Your task to perform on an android device: Search for Italian restaurants on Maps Image 0: 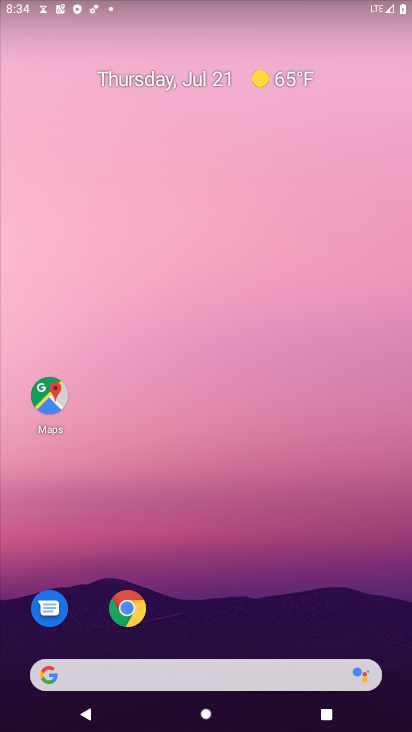
Step 0: click (50, 399)
Your task to perform on an android device: Search for Italian restaurants on Maps Image 1: 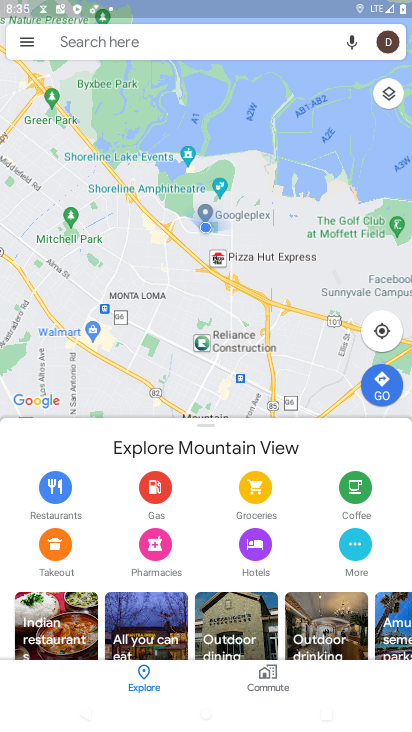
Step 1: click (179, 43)
Your task to perform on an android device: Search for Italian restaurants on Maps Image 2: 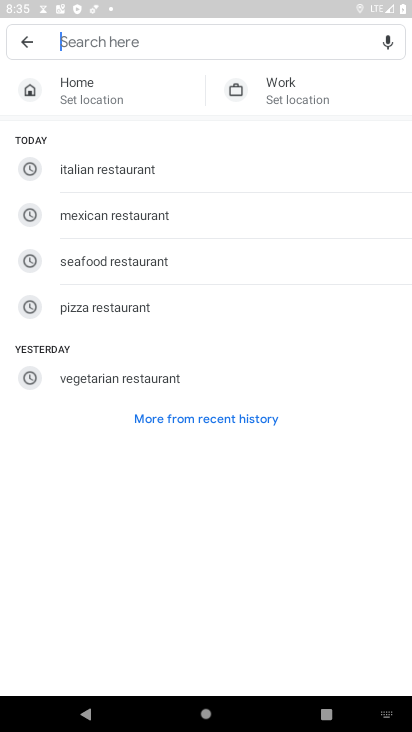
Step 2: type "Italian restaurants"
Your task to perform on an android device: Search for Italian restaurants on Maps Image 3: 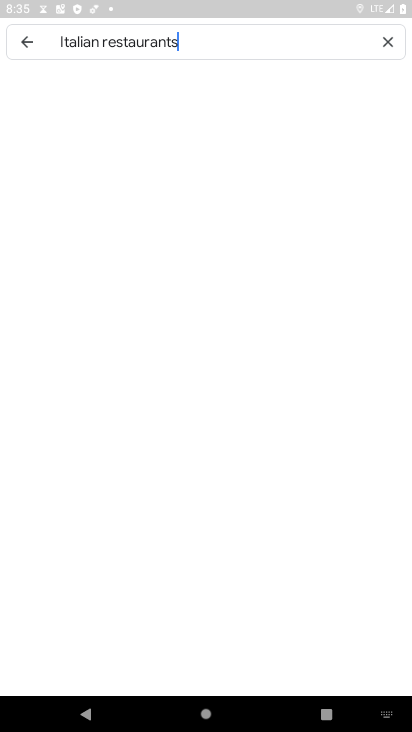
Step 3: type ""
Your task to perform on an android device: Search for Italian restaurants on Maps Image 4: 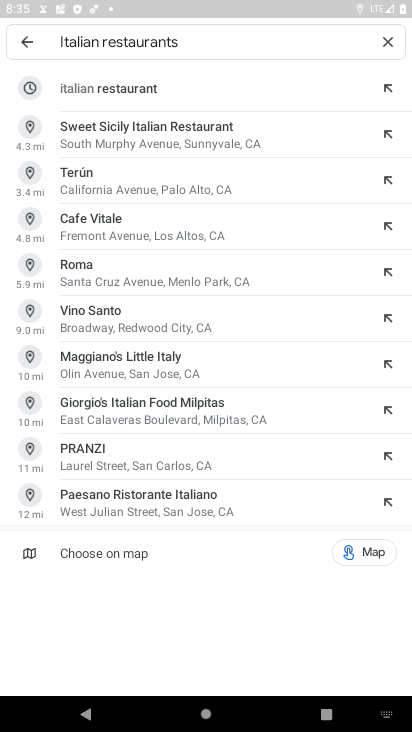
Step 4: click (141, 83)
Your task to perform on an android device: Search for Italian restaurants on Maps Image 5: 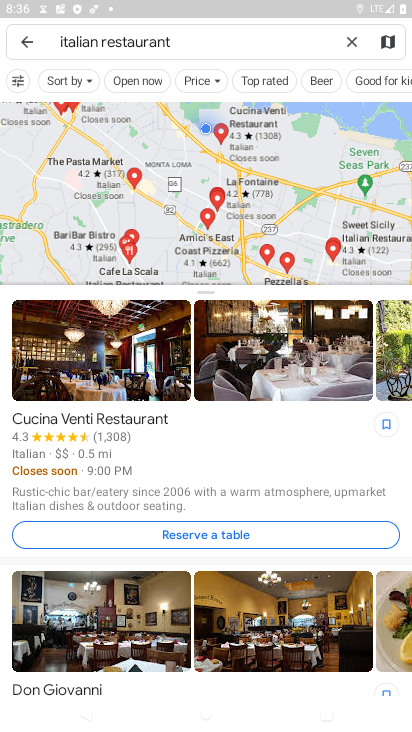
Step 5: task complete